Your task to perform on an android device: turn on priority inbox in the gmail app Image 0: 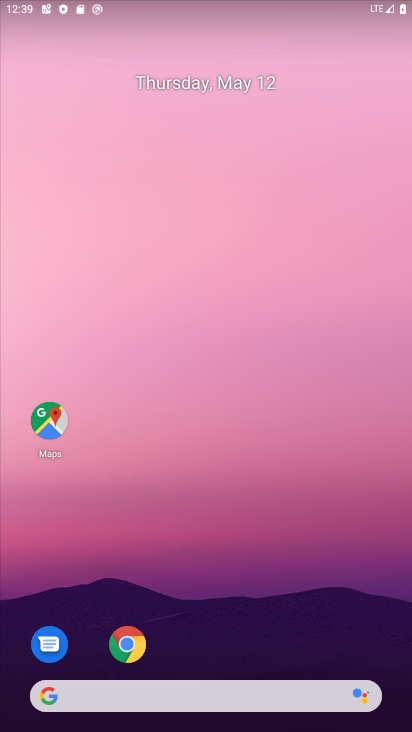
Step 0: drag from (290, 620) to (231, 83)
Your task to perform on an android device: turn on priority inbox in the gmail app Image 1: 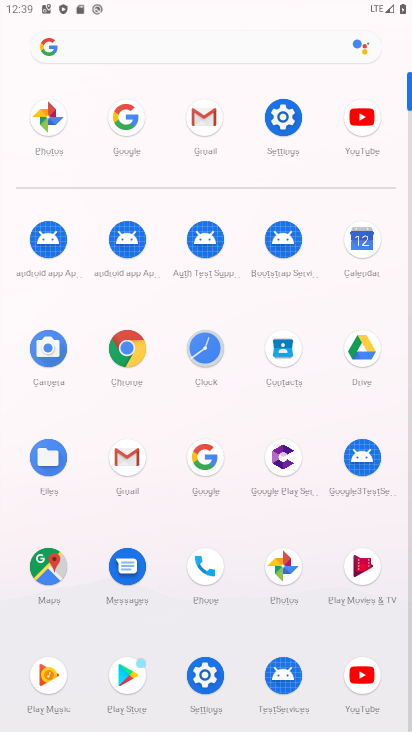
Step 1: click (196, 98)
Your task to perform on an android device: turn on priority inbox in the gmail app Image 2: 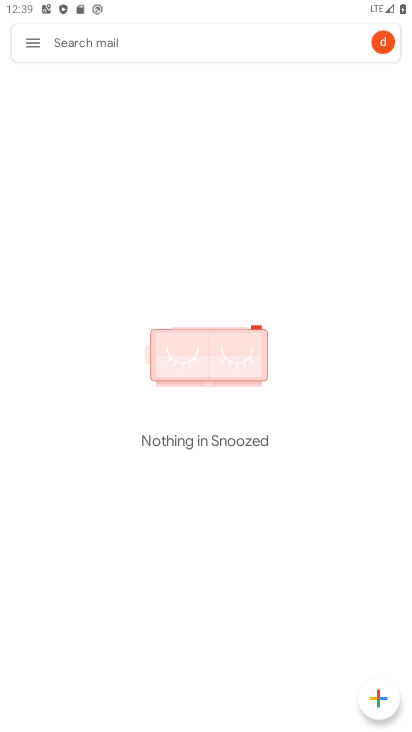
Step 2: click (33, 40)
Your task to perform on an android device: turn on priority inbox in the gmail app Image 3: 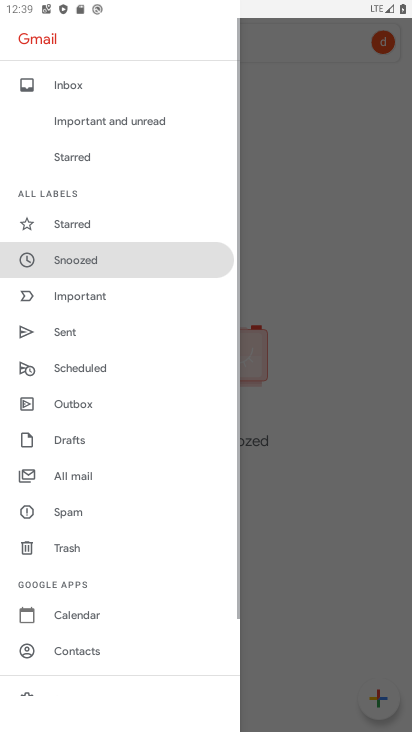
Step 3: drag from (114, 646) to (96, 341)
Your task to perform on an android device: turn on priority inbox in the gmail app Image 4: 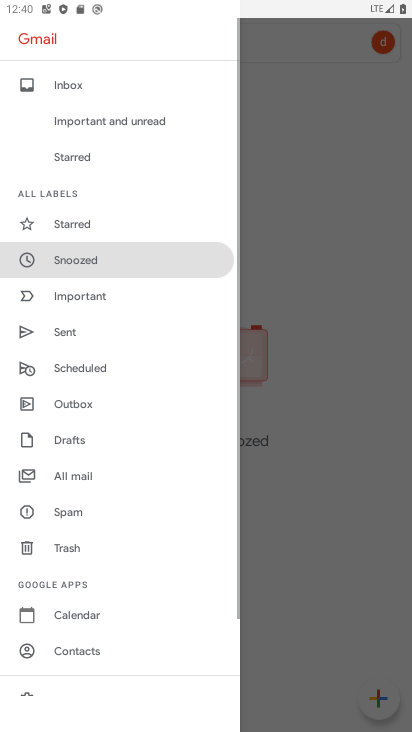
Step 4: drag from (98, 622) to (135, 322)
Your task to perform on an android device: turn on priority inbox in the gmail app Image 5: 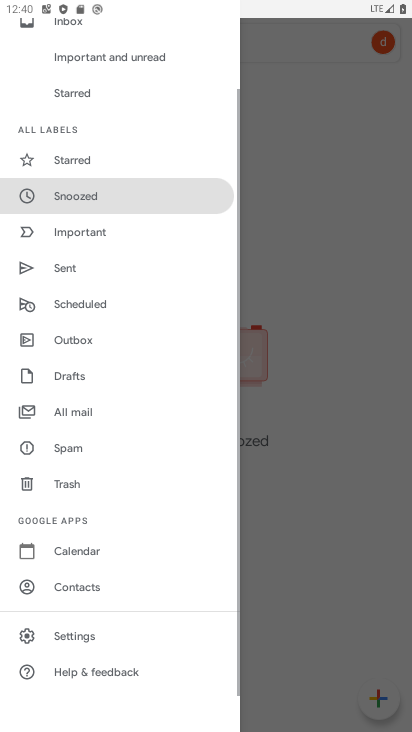
Step 5: click (75, 630)
Your task to perform on an android device: turn on priority inbox in the gmail app Image 6: 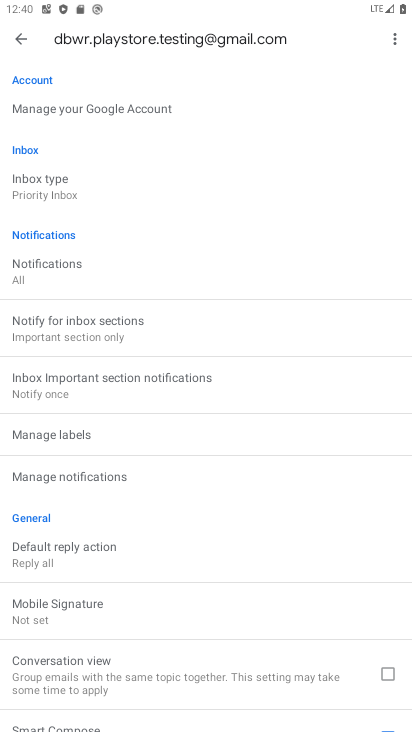
Step 6: click (102, 184)
Your task to perform on an android device: turn on priority inbox in the gmail app Image 7: 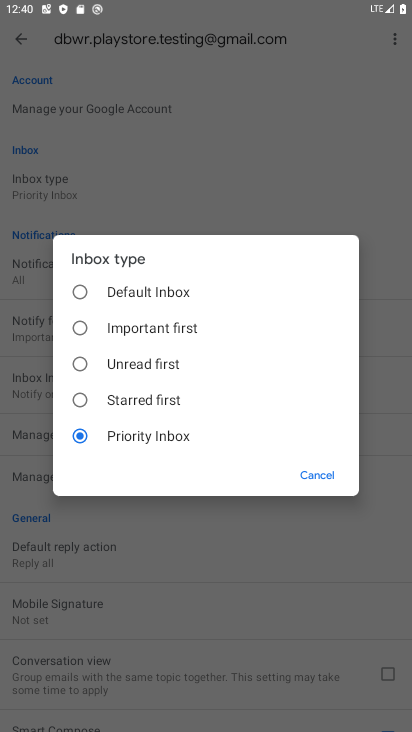
Step 7: task complete